Your task to perform on an android device: turn off smart reply in the gmail app Image 0: 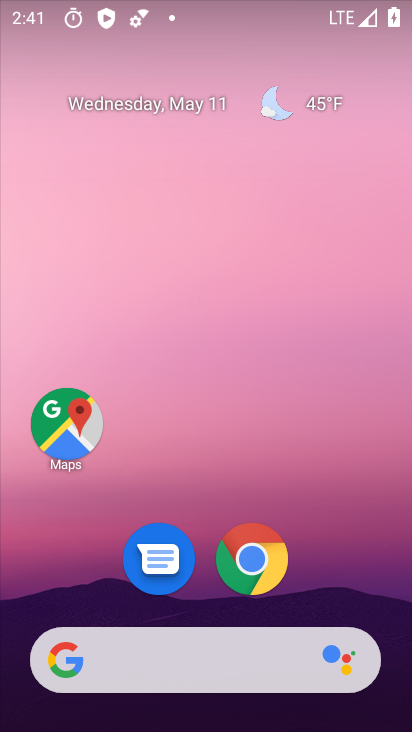
Step 0: drag from (331, 548) to (203, 46)
Your task to perform on an android device: turn off smart reply in the gmail app Image 1: 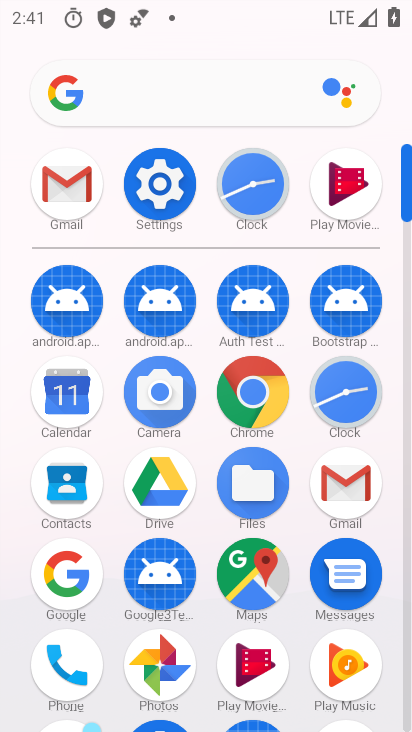
Step 1: click (335, 479)
Your task to perform on an android device: turn off smart reply in the gmail app Image 2: 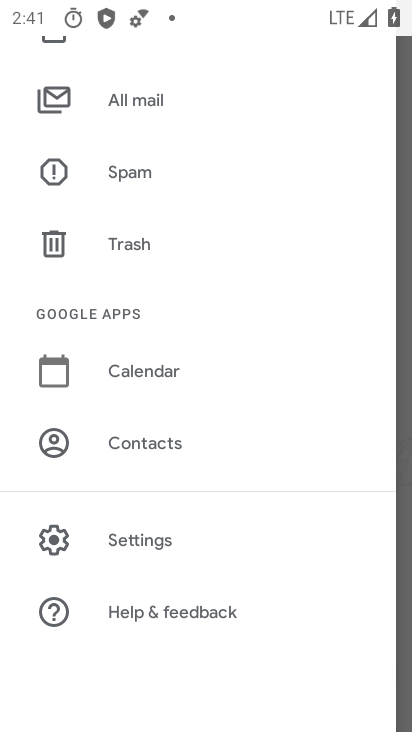
Step 2: click (162, 530)
Your task to perform on an android device: turn off smart reply in the gmail app Image 3: 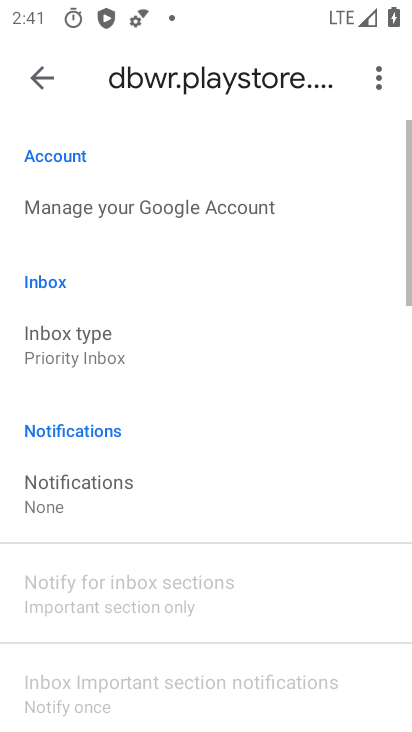
Step 3: drag from (189, 585) to (178, 139)
Your task to perform on an android device: turn off smart reply in the gmail app Image 4: 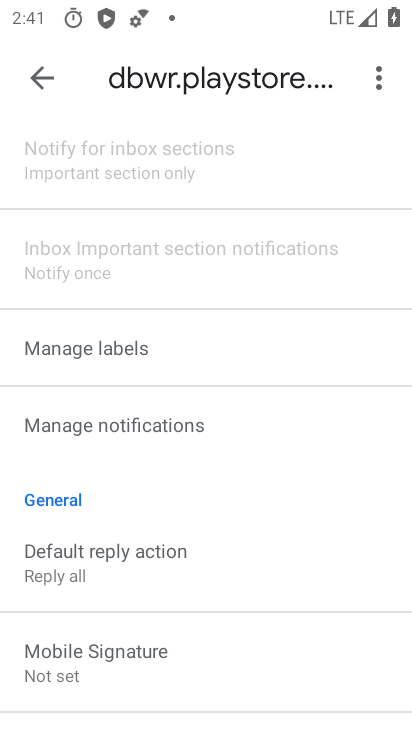
Step 4: drag from (224, 553) to (215, 209)
Your task to perform on an android device: turn off smart reply in the gmail app Image 5: 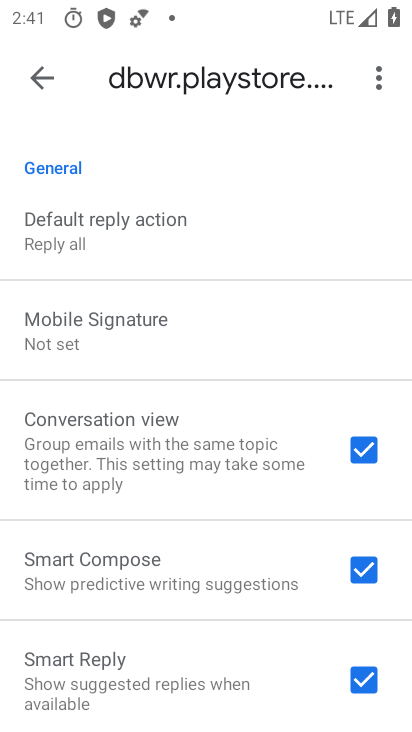
Step 5: click (370, 674)
Your task to perform on an android device: turn off smart reply in the gmail app Image 6: 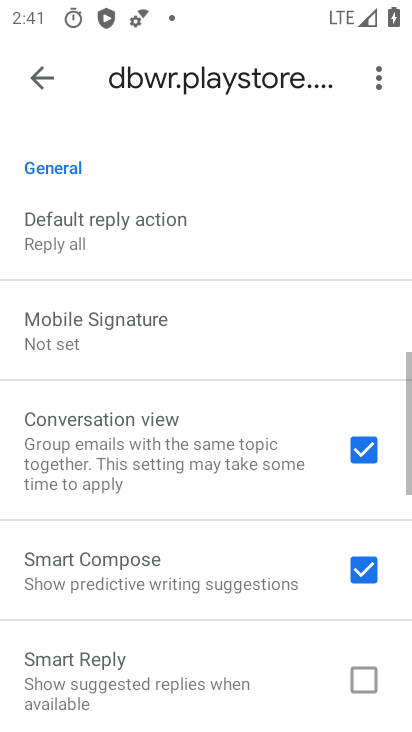
Step 6: task complete